Your task to perform on an android device: Open my contact list Image 0: 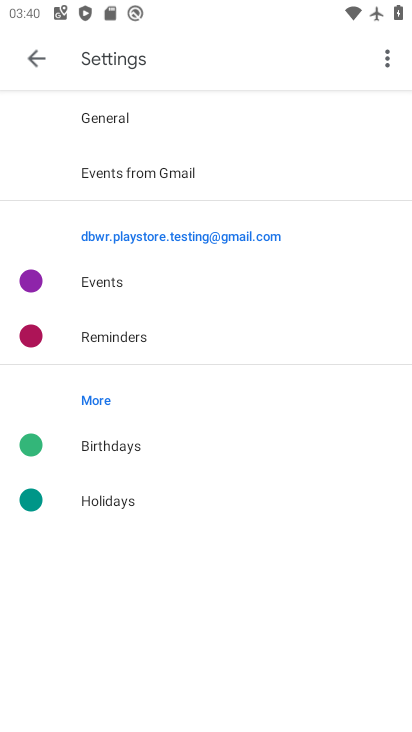
Step 0: press home button
Your task to perform on an android device: Open my contact list Image 1: 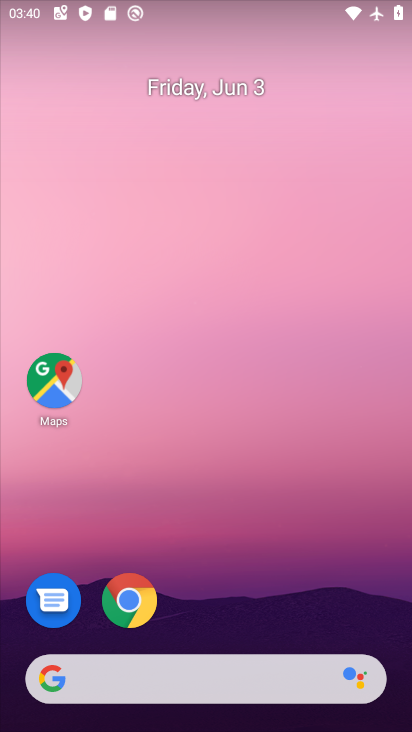
Step 1: drag from (215, 619) to (281, 63)
Your task to perform on an android device: Open my contact list Image 2: 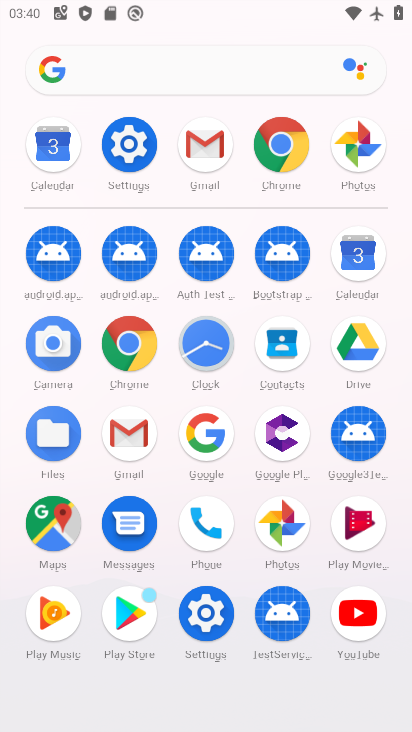
Step 2: click (285, 351)
Your task to perform on an android device: Open my contact list Image 3: 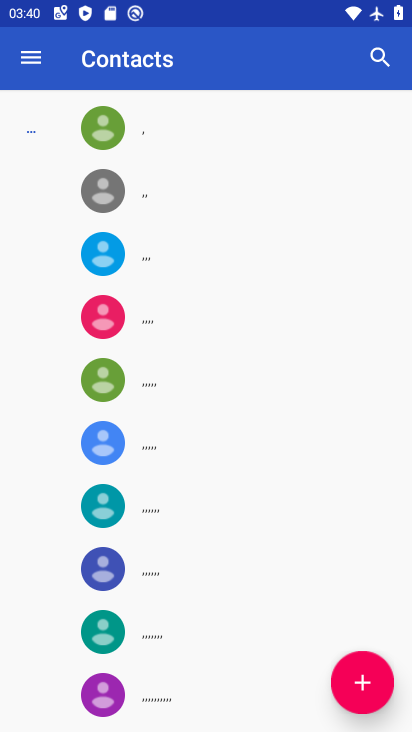
Step 3: task complete